Your task to perform on an android device: Search for seafood restaurants on Google Maps Image 0: 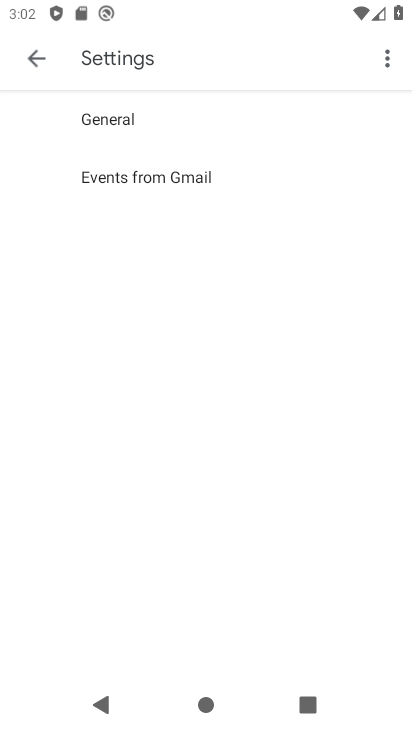
Step 0: press home button
Your task to perform on an android device: Search for seafood restaurants on Google Maps Image 1: 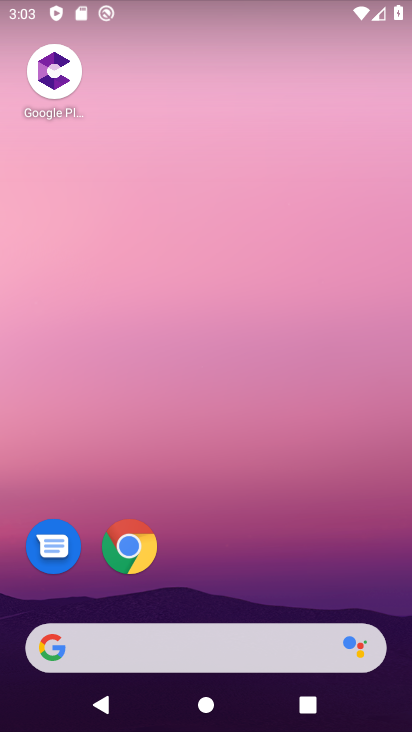
Step 1: drag from (124, 595) to (167, 260)
Your task to perform on an android device: Search for seafood restaurants on Google Maps Image 2: 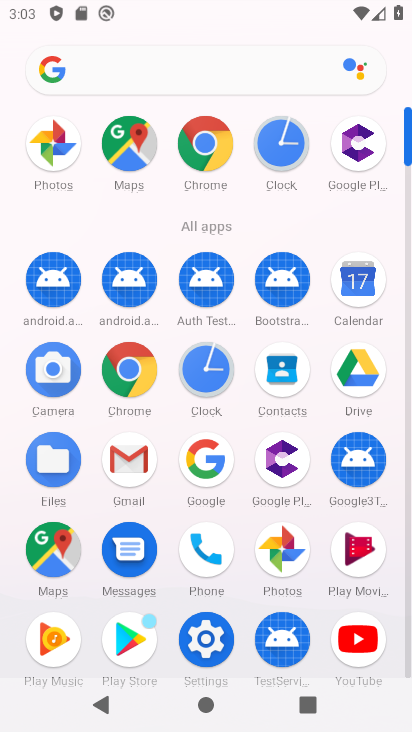
Step 2: click (52, 549)
Your task to perform on an android device: Search for seafood restaurants on Google Maps Image 3: 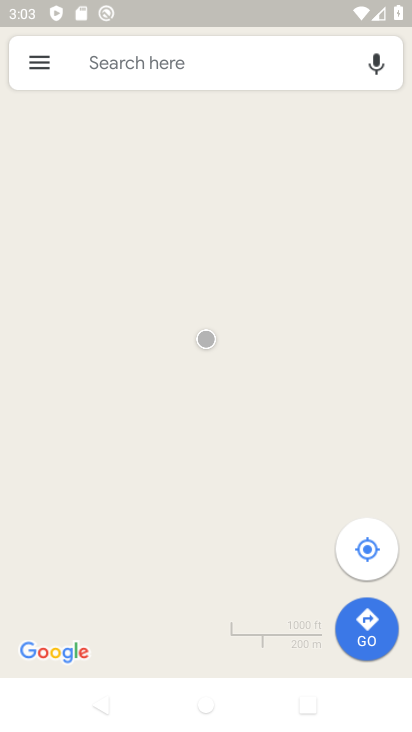
Step 3: click (157, 71)
Your task to perform on an android device: Search for seafood restaurants on Google Maps Image 4: 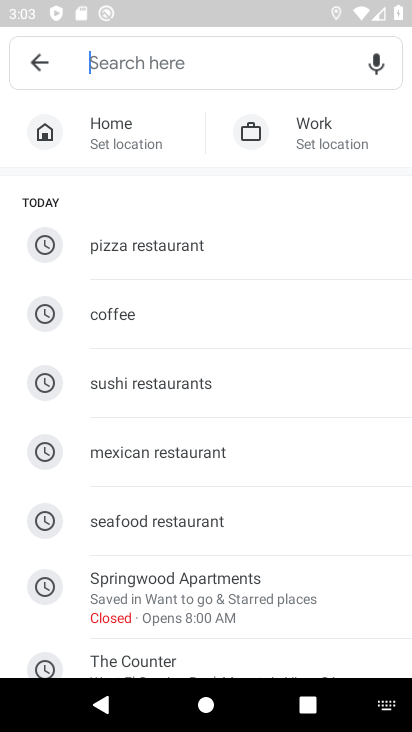
Step 4: type "seafood restaurants"
Your task to perform on an android device: Search for seafood restaurants on Google Maps Image 5: 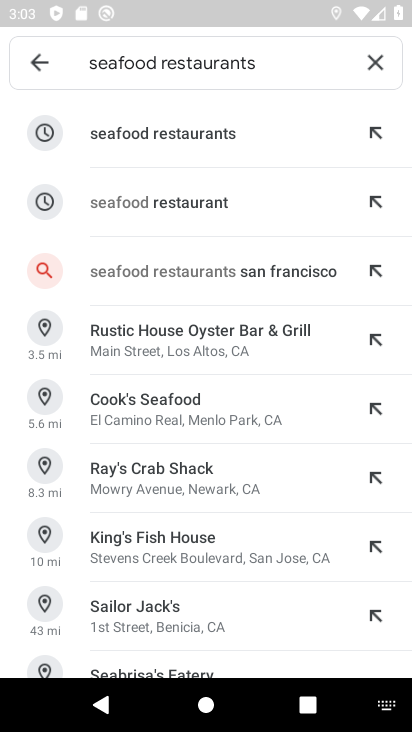
Step 5: task complete